Your task to perform on an android device: What's the weather today? Image 0: 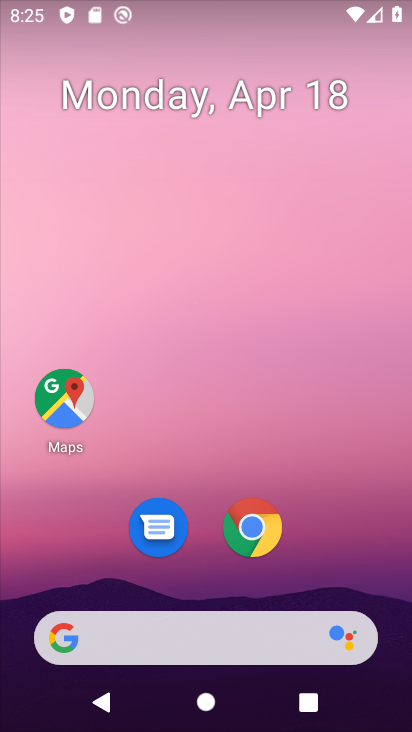
Step 0: drag from (67, 260) to (406, 308)
Your task to perform on an android device: What's the weather today? Image 1: 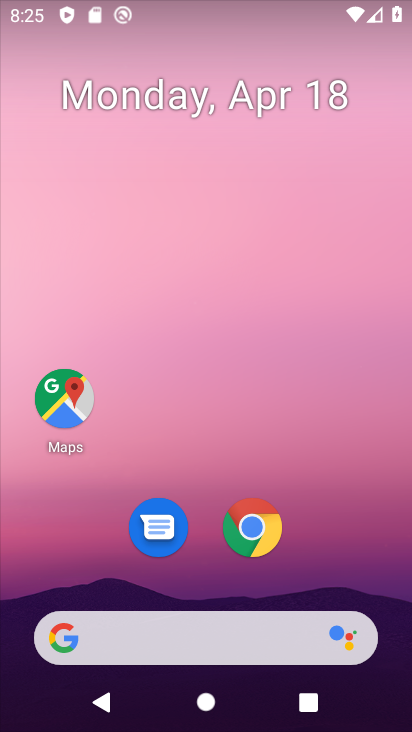
Step 1: drag from (48, 209) to (402, 242)
Your task to perform on an android device: What's the weather today? Image 2: 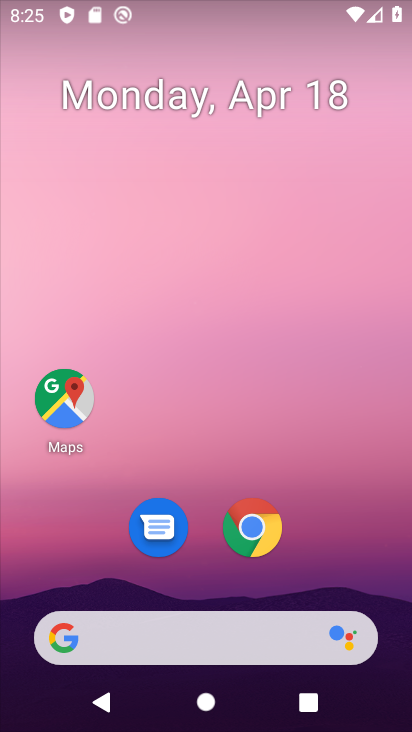
Step 2: drag from (49, 219) to (404, 291)
Your task to perform on an android device: What's the weather today? Image 3: 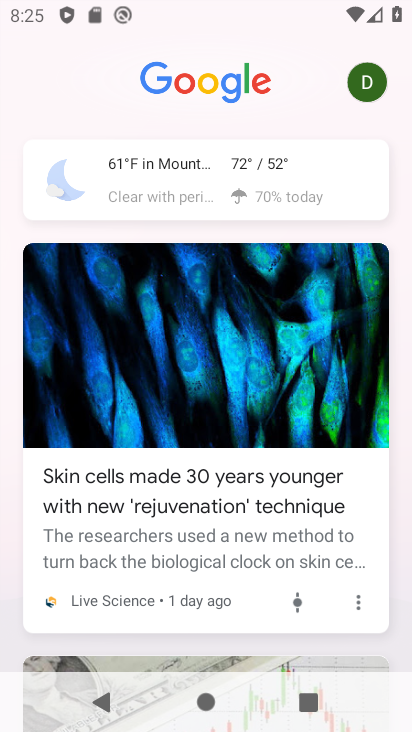
Step 3: click (163, 165)
Your task to perform on an android device: What's the weather today? Image 4: 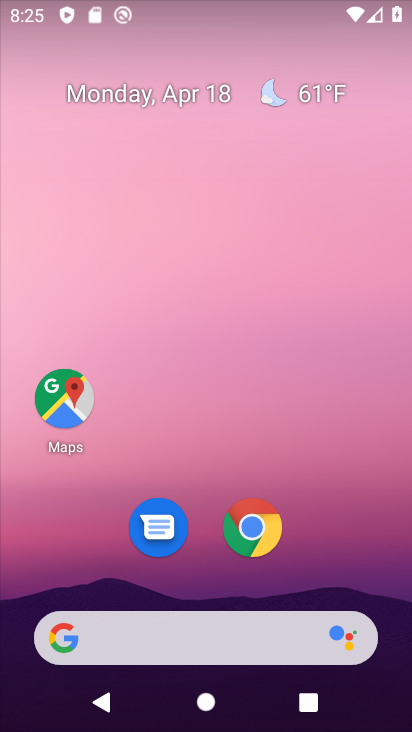
Step 4: task complete